Your task to perform on an android device: toggle location history Image 0: 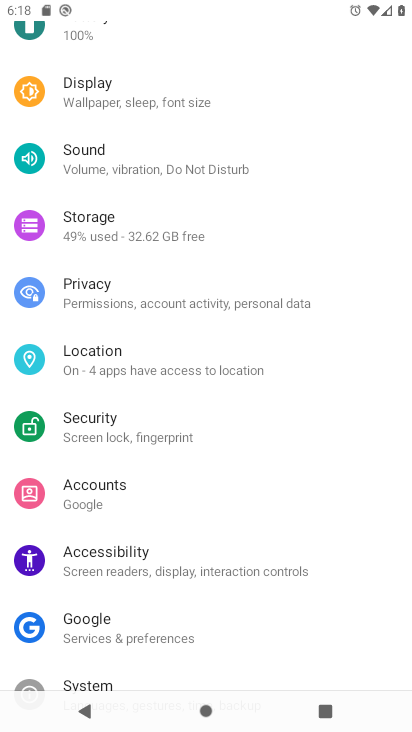
Step 0: click (105, 365)
Your task to perform on an android device: toggle location history Image 1: 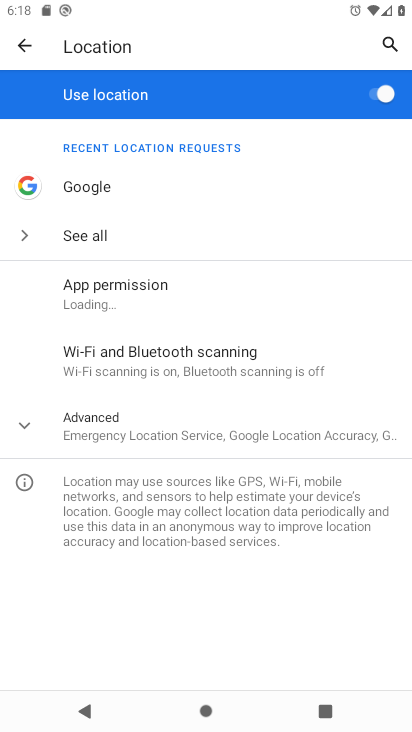
Step 1: click (138, 437)
Your task to perform on an android device: toggle location history Image 2: 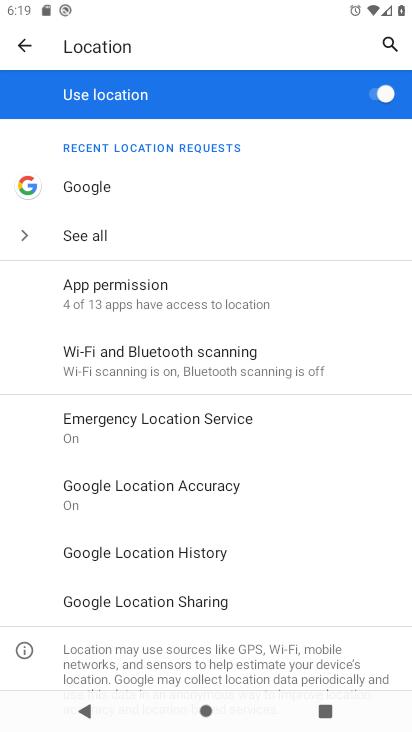
Step 2: click (156, 555)
Your task to perform on an android device: toggle location history Image 3: 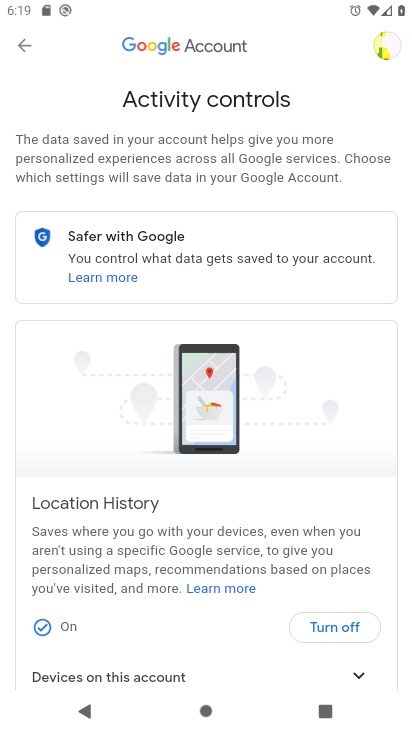
Step 3: click (319, 627)
Your task to perform on an android device: toggle location history Image 4: 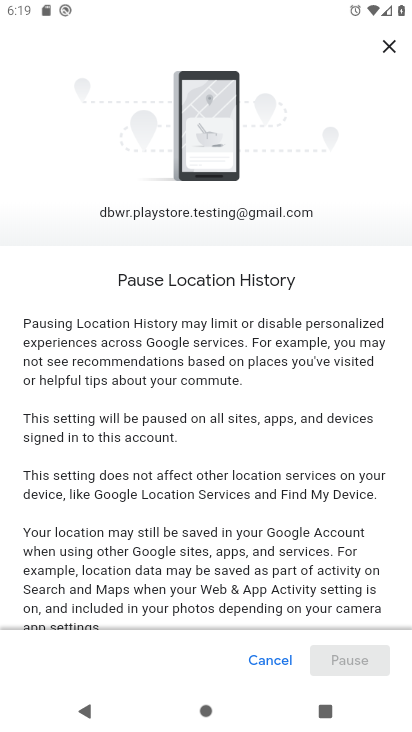
Step 4: drag from (233, 591) to (272, 393)
Your task to perform on an android device: toggle location history Image 5: 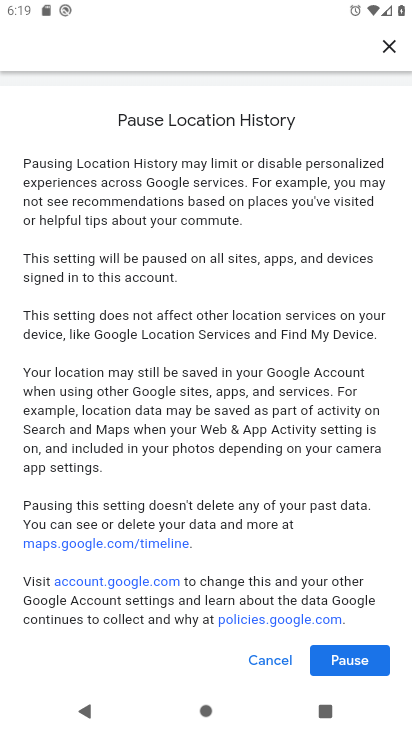
Step 5: click (331, 659)
Your task to perform on an android device: toggle location history Image 6: 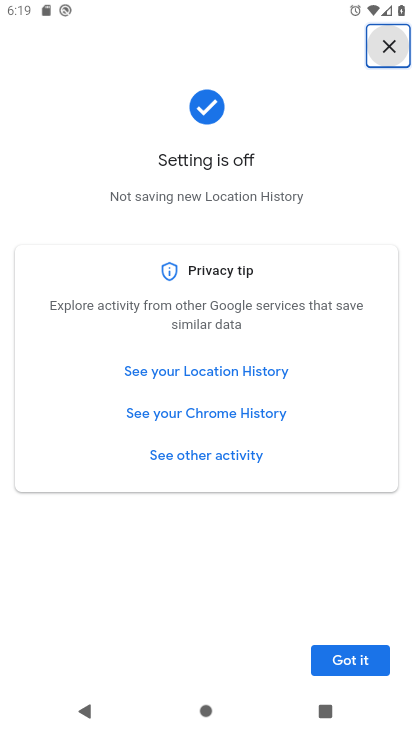
Step 6: click (330, 660)
Your task to perform on an android device: toggle location history Image 7: 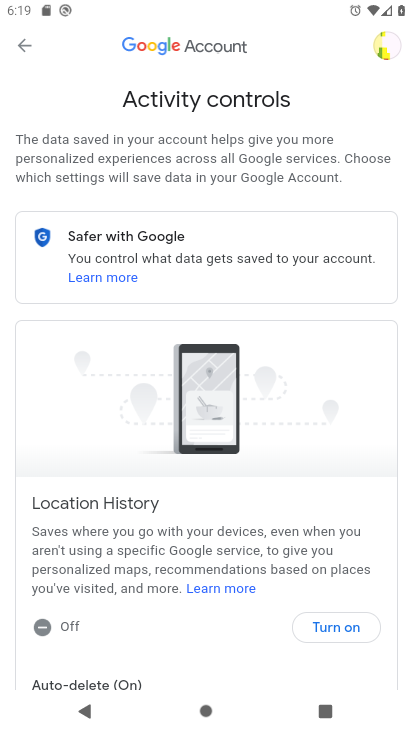
Step 7: task complete